Your task to perform on an android device: turn off location history Image 0: 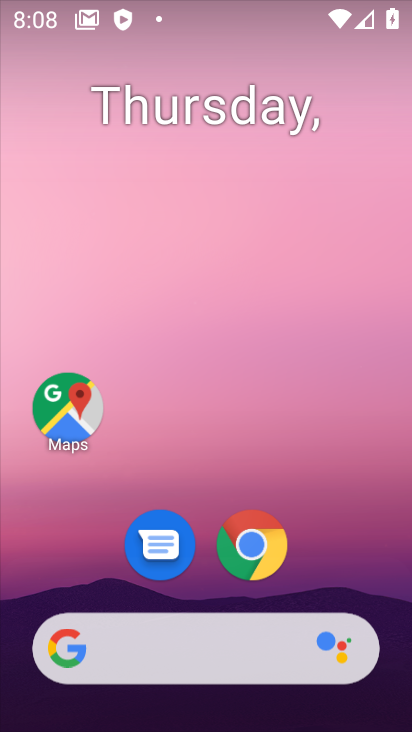
Step 0: drag from (329, 579) to (271, 15)
Your task to perform on an android device: turn off location history Image 1: 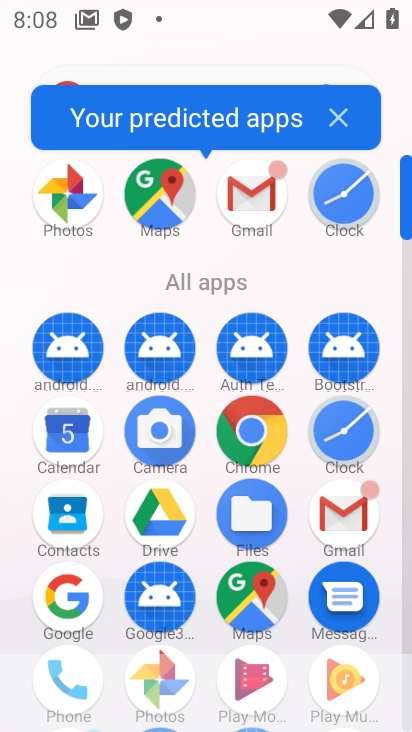
Step 1: drag from (293, 288) to (334, 45)
Your task to perform on an android device: turn off location history Image 2: 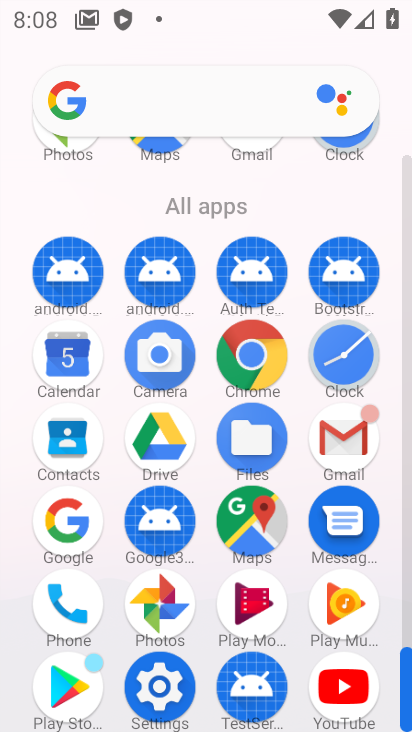
Step 2: click (158, 687)
Your task to perform on an android device: turn off location history Image 3: 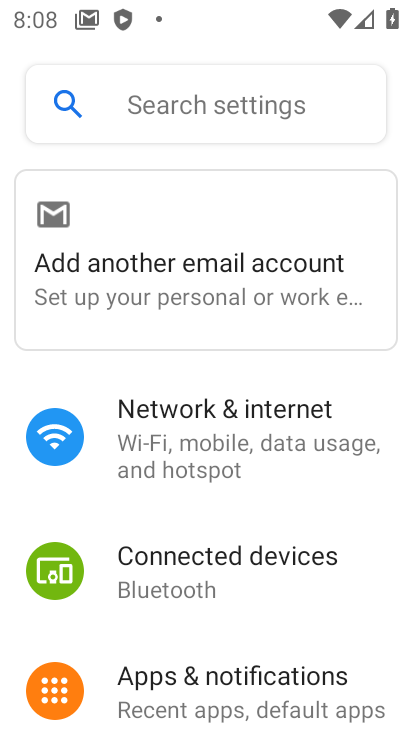
Step 3: drag from (195, 492) to (257, 346)
Your task to perform on an android device: turn off location history Image 4: 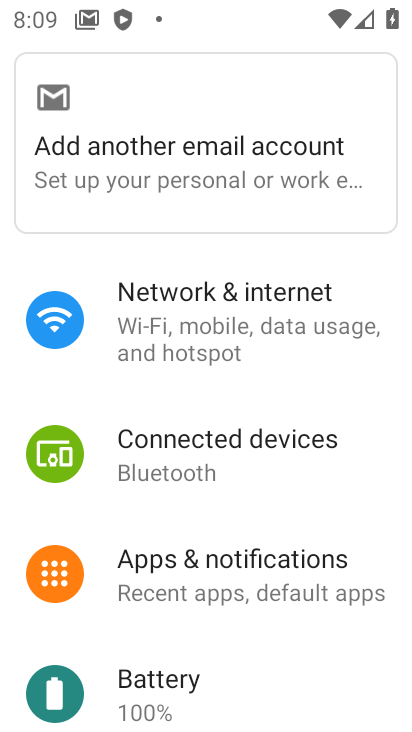
Step 4: drag from (229, 491) to (269, 377)
Your task to perform on an android device: turn off location history Image 5: 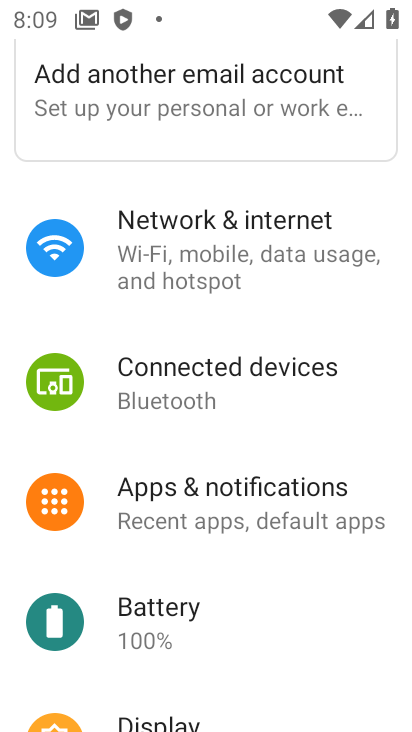
Step 5: drag from (214, 554) to (277, 424)
Your task to perform on an android device: turn off location history Image 6: 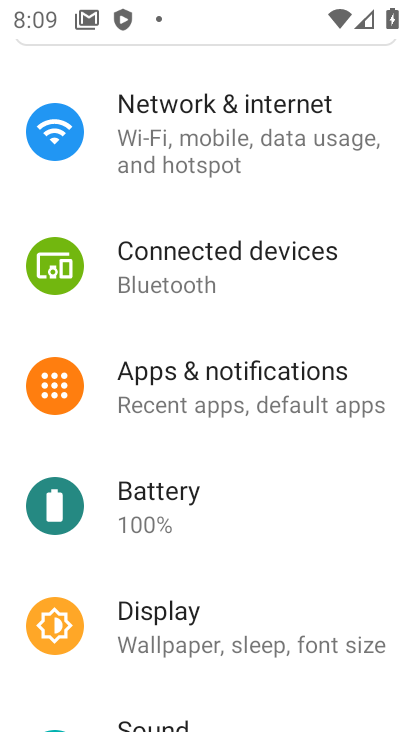
Step 6: drag from (218, 540) to (276, 415)
Your task to perform on an android device: turn off location history Image 7: 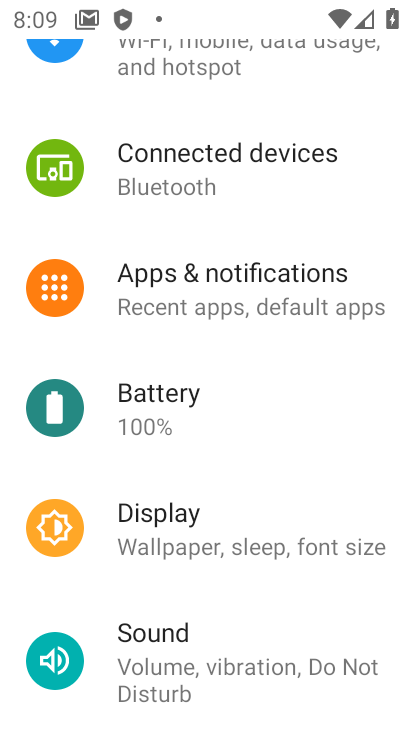
Step 7: drag from (217, 592) to (290, 492)
Your task to perform on an android device: turn off location history Image 8: 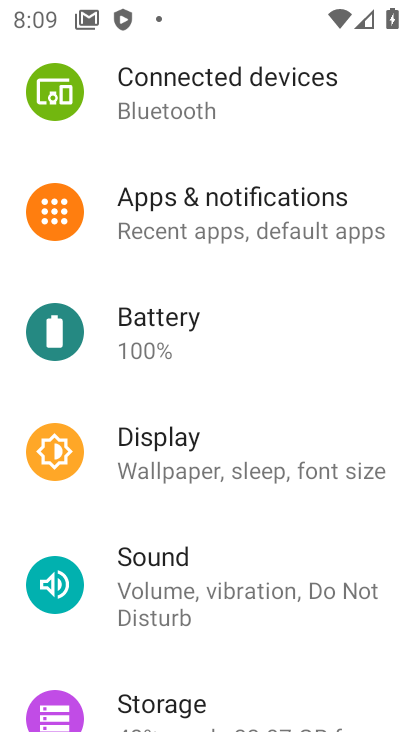
Step 8: drag from (230, 643) to (328, 505)
Your task to perform on an android device: turn off location history Image 9: 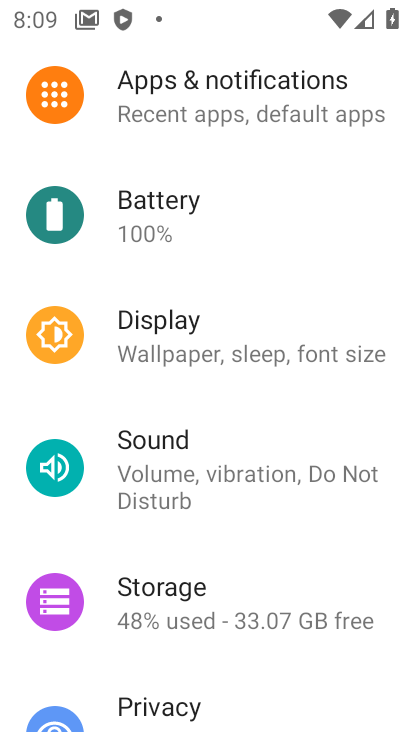
Step 9: drag from (238, 633) to (259, 425)
Your task to perform on an android device: turn off location history Image 10: 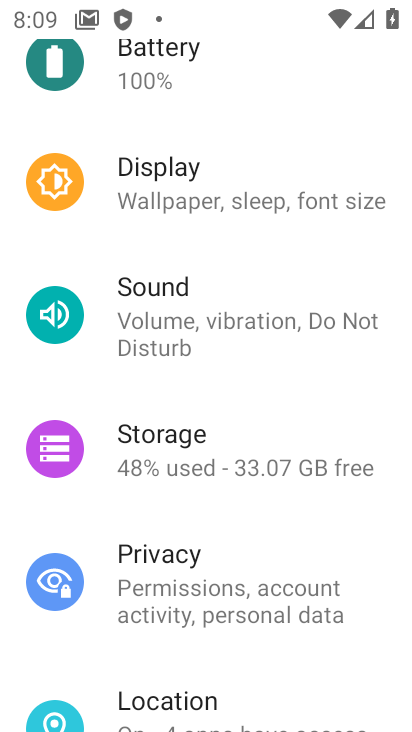
Step 10: drag from (232, 528) to (295, 404)
Your task to perform on an android device: turn off location history Image 11: 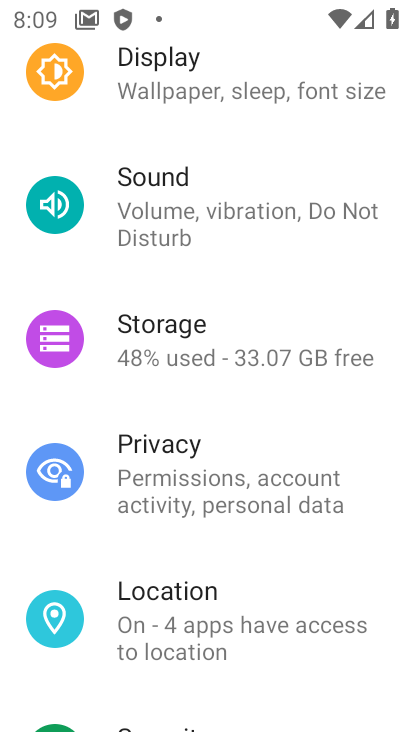
Step 11: click (202, 599)
Your task to perform on an android device: turn off location history Image 12: 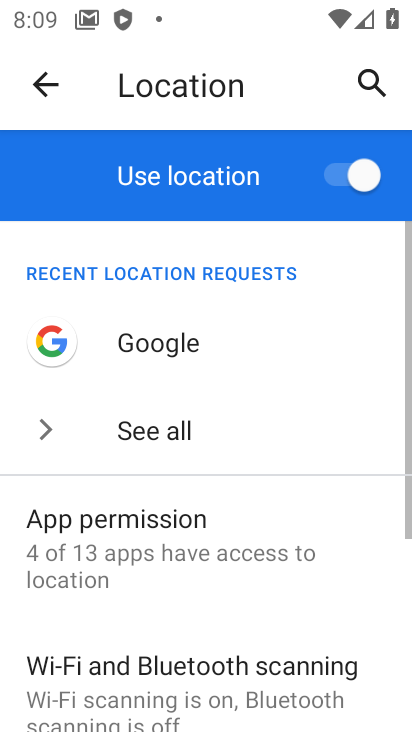
Step 12: drag from (240, 555) to (346, 401)
Your task to perform on an android device: turn off location history Image 13: 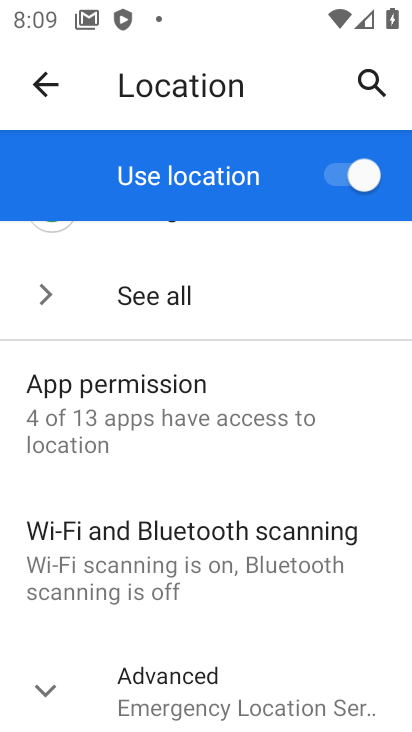
Step 13: drag from (251, 545) to (341, 432)
Your task to perform on an android device: turn off location history Image 14: 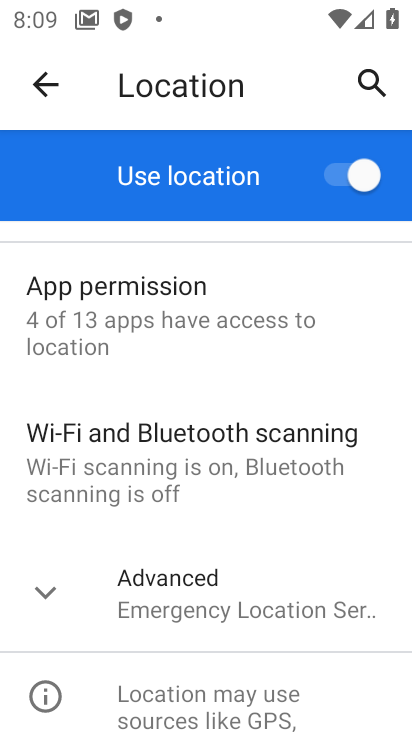
Step 14: drag from (274, 547) to (348, 441)
Your task to perform on an android device: turn off location history Image 15: 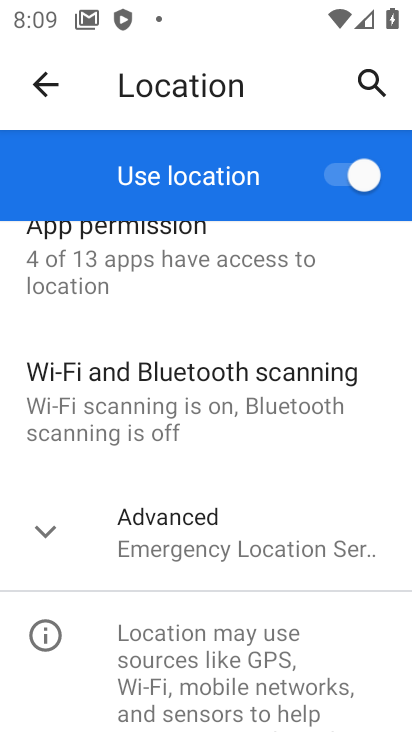
Step 15: click (238, 546)
Your task to perform on an android device: turn off location history Image 16: 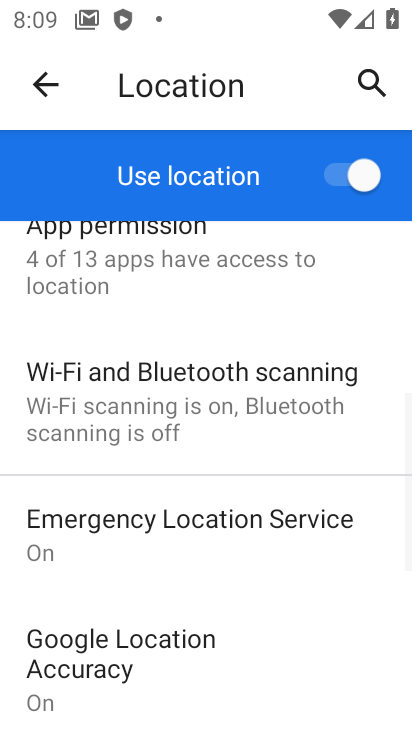
Step 16: drag from (188, 611) to (302, 455)
Your task to perform on an android device: turn off location history Image 17: 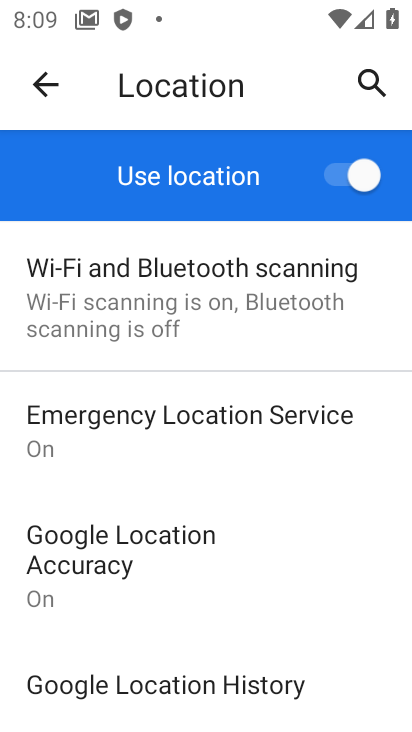
Step 17: drag from (239, 594) to (336, 465)
Your task to perform on an android device: turn off location history Image 18: 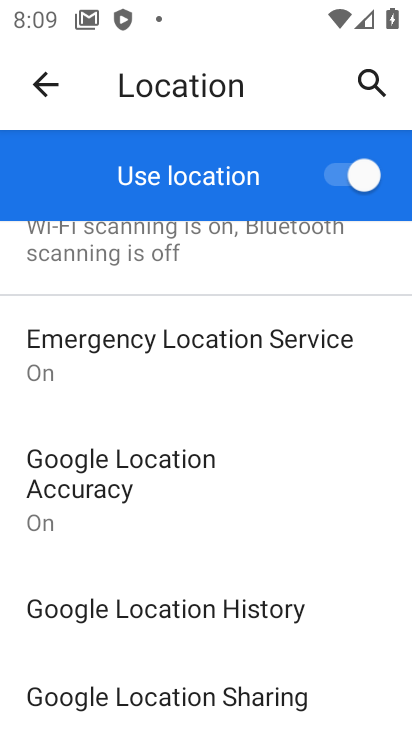
Step 18: drag from (194, 625) to (290, 479)
Your task to perform on an android device: turn off location history Image 19: 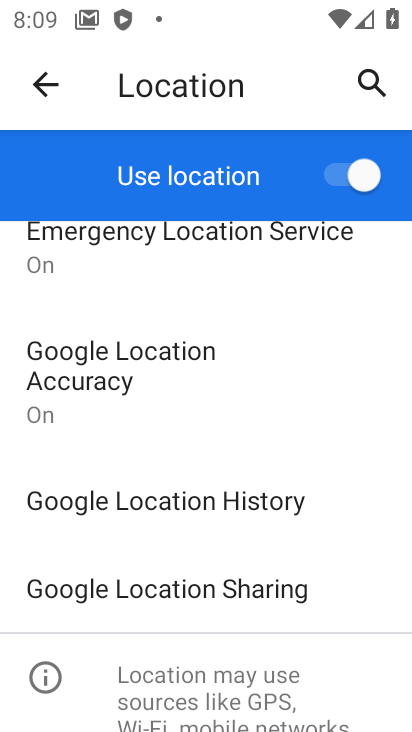
Step 19: click (263, 503)
Your task to perform on an android device: turn off location history Image 20: 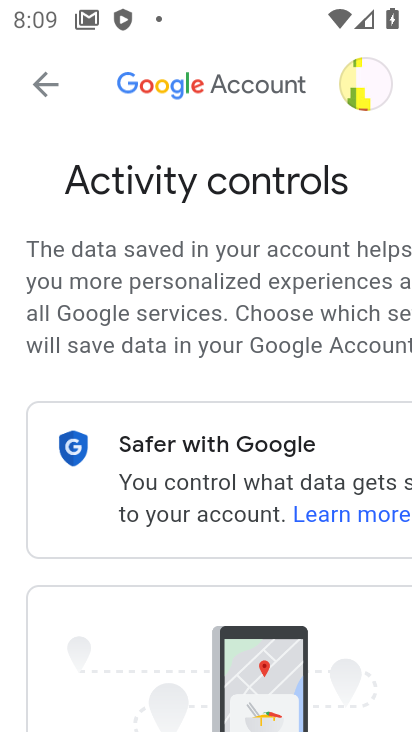
Step 20: drag from (154, 622) to (235, 294)
Your task to perform on an android device: turn off location history Image 21: 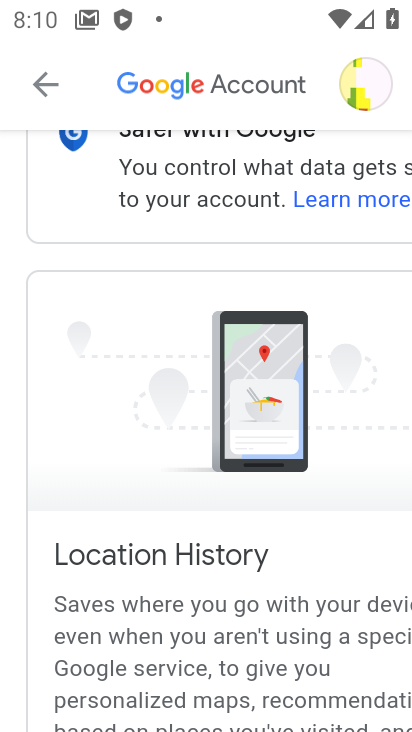
Step 21: drag from (159, 597) to (263, 303)
Your task to perform on an android device: turn off location history Image 22: 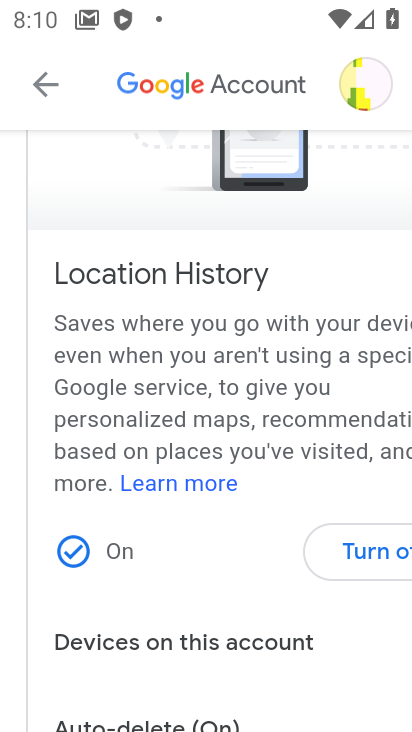
Step 22: click (379, 548)
Your task to perform on an android device: turn off location history Image 23: 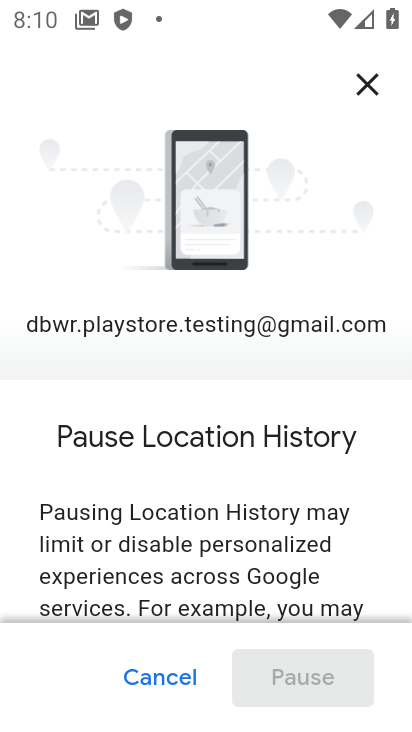
Step 23: drag from (186, 557) to (268, 302)
Your task to perform on an android device: turn off location history Image 24: 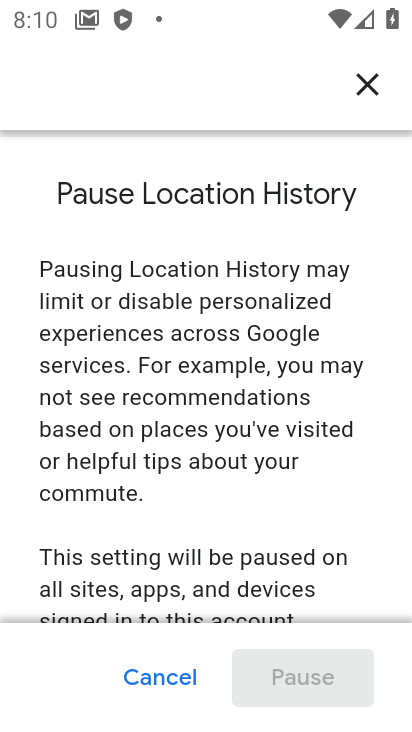
Step 24: drag from (231, 511) to (298, 300)
Your task to perform on an android device: turn off location history Image 25: 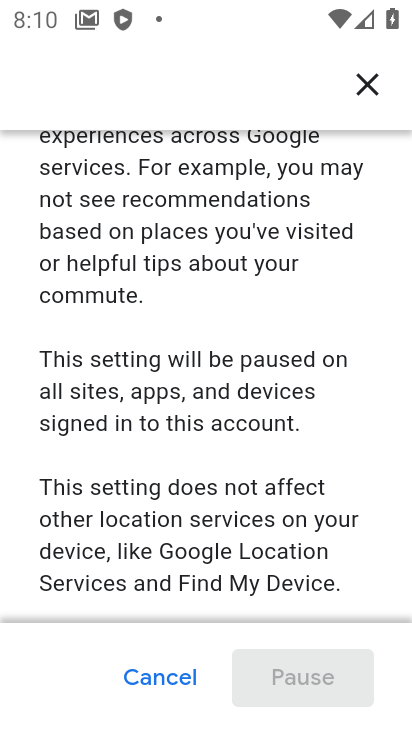
Step 25: drag from (251, 506) to (291, 325)
Your task to perform on an android device: turn off location history Image 26: 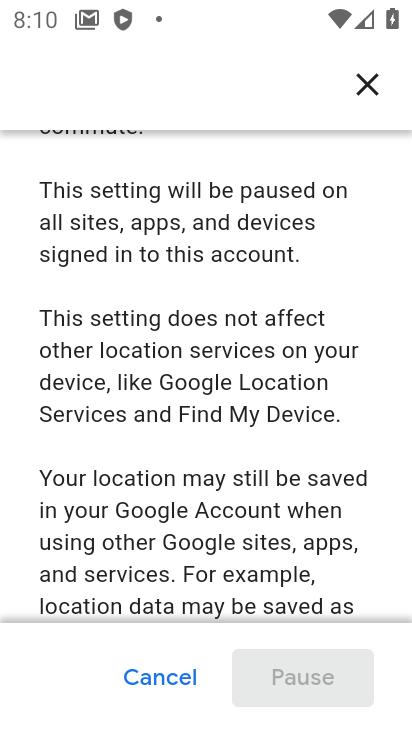
Step 26: drag from (227, 537) to (319, 351)
Your task to perform on an android device: turn off location history Image 27: 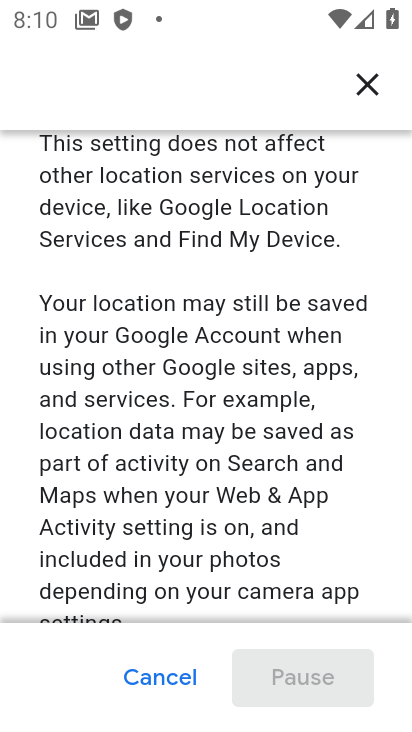
Step 27: drag from (249, 552) to (315, 336)
Your task to perform on an android device: turn off location history Image 28: 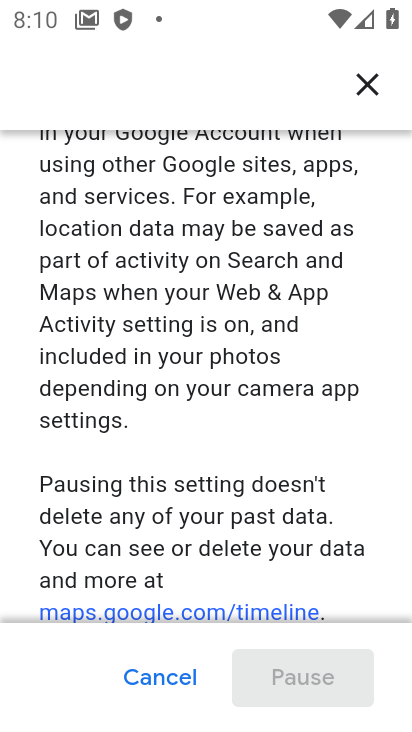
Step 28: drag from (252, 531) to (324, 345)
Your task to perform on an android device: turn off location history Image 29: 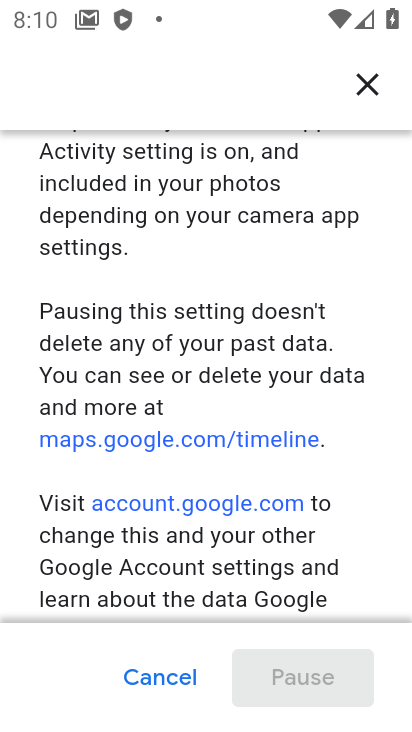
Step 29: drag from (247, 560) to (331, 379)
Your task to perform on an android device: turn off location history Image 30: 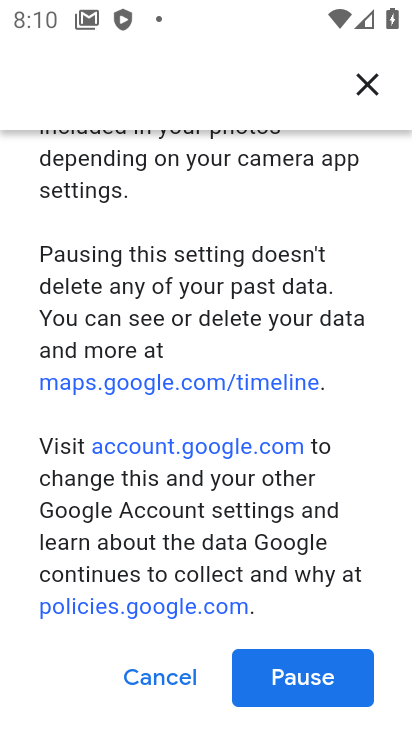
Step 30: click (293, 669)
Your task to perform on an android device: turn off location history Image 31: 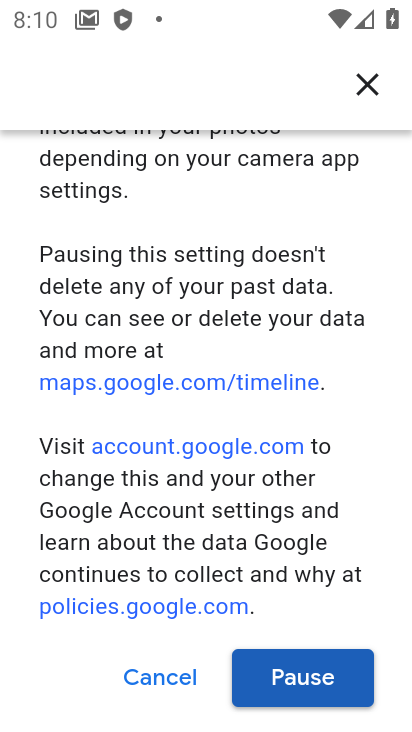
Step 31: click (313, 676)
Your task to perform on an android device: turn off location history Image 32: 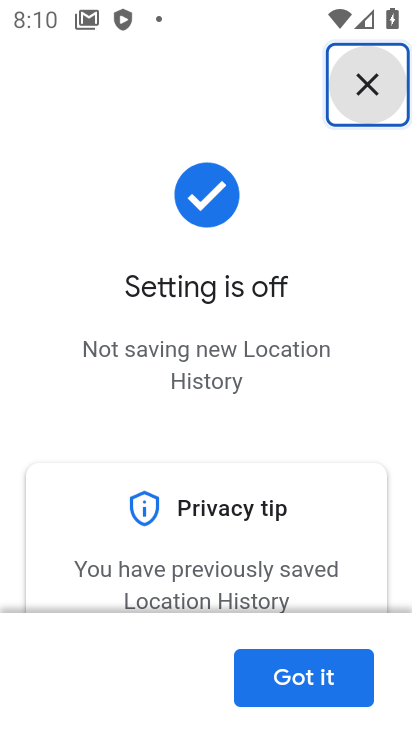
Step 32: task complete